Your task to perform on an android device: turn off javascript in the chrome app Image 0: 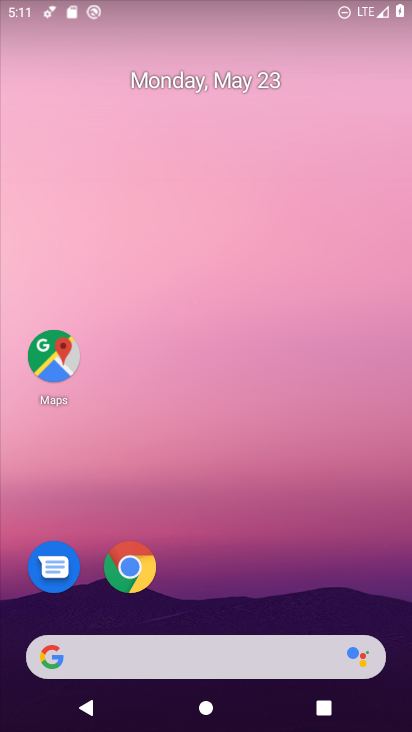
Step 0: click (131, 567)
Your task to perform on an android device: turn off javascript in the chrome app Image 1: 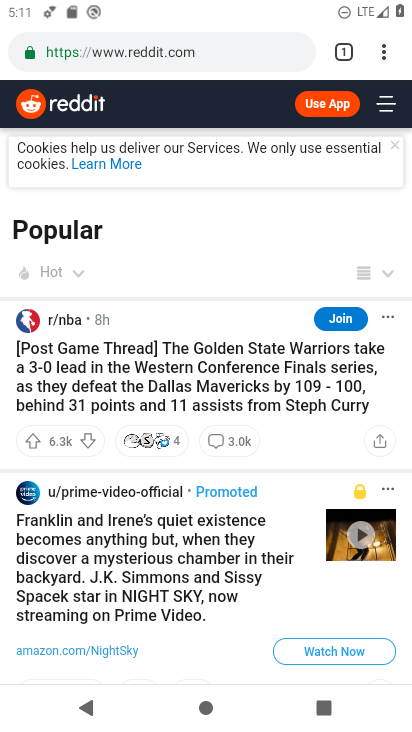
Step 1: click (385, 56)
Your task to perform on an android device: turn off javascript in the chrome app Image 2: 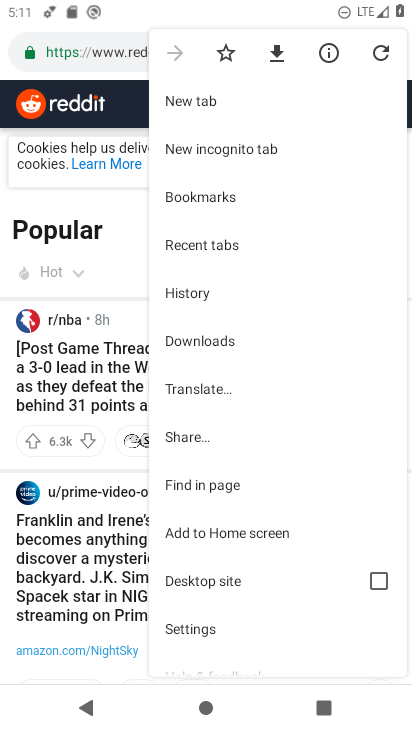
Step 2: click (199, 627)
Your task to perform on an android device: turn off javascript in the chrome app Image 3: 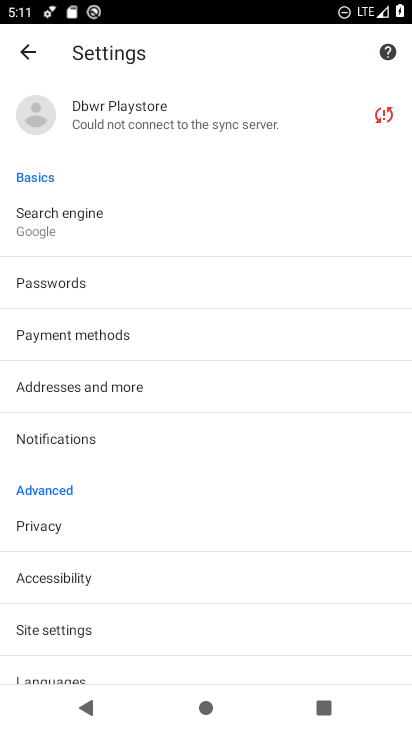
Step 3: drag from (130, 550) to (181, 450)
Your task to perform on an android device: turn off javascript in the chrome app Image 4: 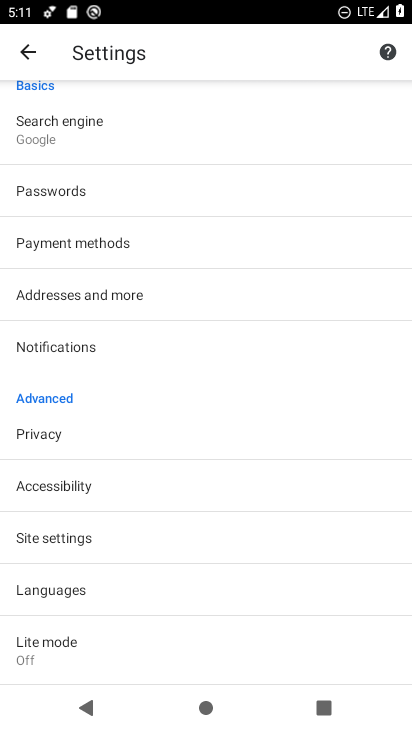
Step 4: click (64, 534)
Your task to perform on an android device: turn off javascript in the chrome app Image 5: 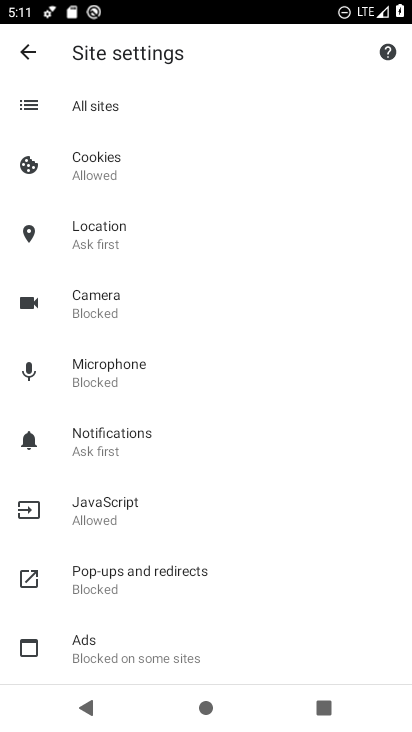
Step 5: drag from (145, 607) to (212, 498)
Your task to perform on an android device: turn off javascript in the chrome app Image 6: 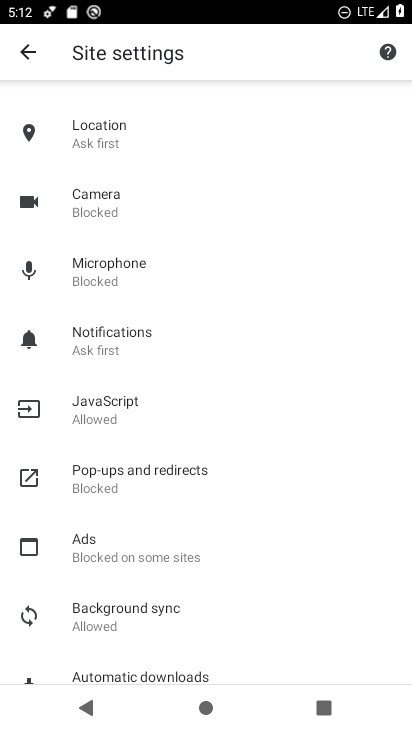
Step 6: click (126, 409)
Your task to perform on an android device: turn off javascript in the chrome app Image 7: 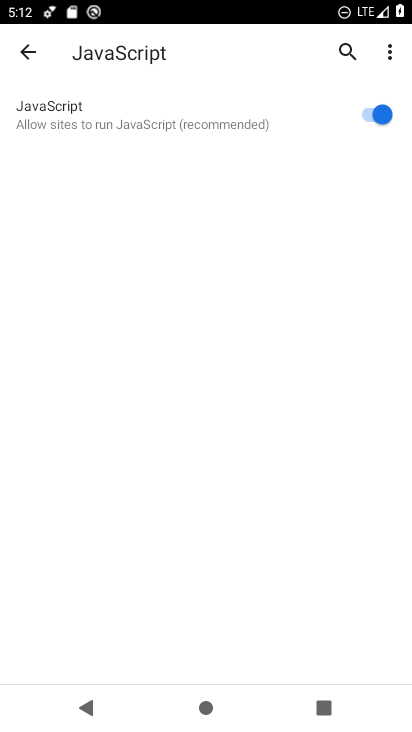
Step 7: click (370, 107)
Your task to perform on an android device: turn off javascript in the chrome app Image 8: 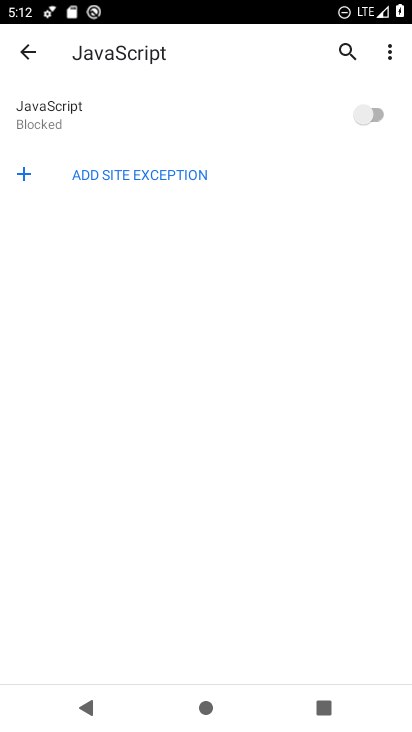
Step 8: task complete